Your task to perform on an android device: Open notification settings Image 0: 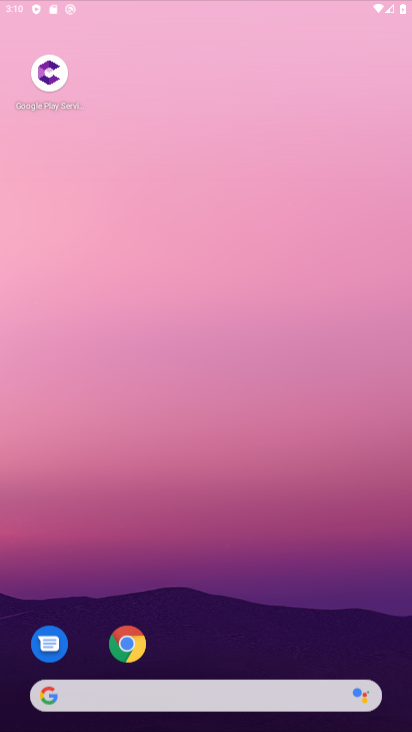
Step 0: click (297, 212)
Your task to perform on an android device: Open notification settings Image 1: 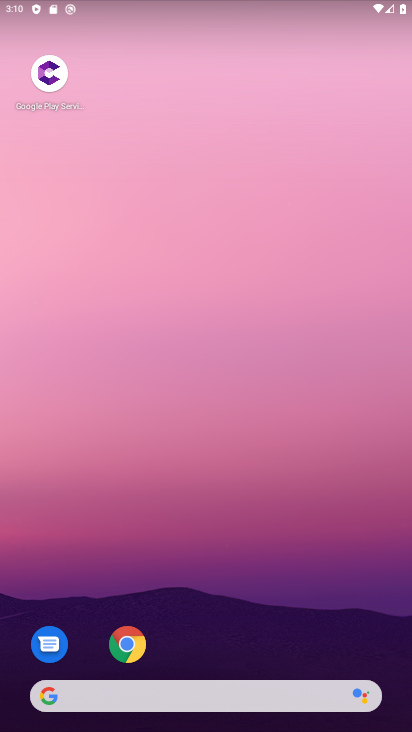
Step 1: press home button
Your task to perform on an android device: Open notification settings Image 2: 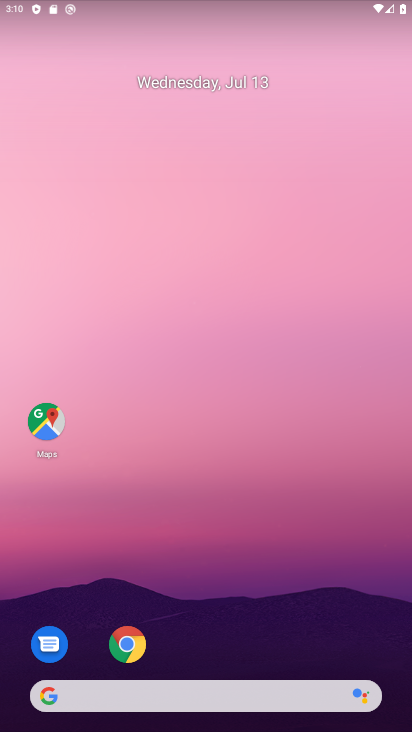
Step 2: drag from (202, 594) to (228, 162)
Your task to perform on an android device: Open notification settings Image 3: 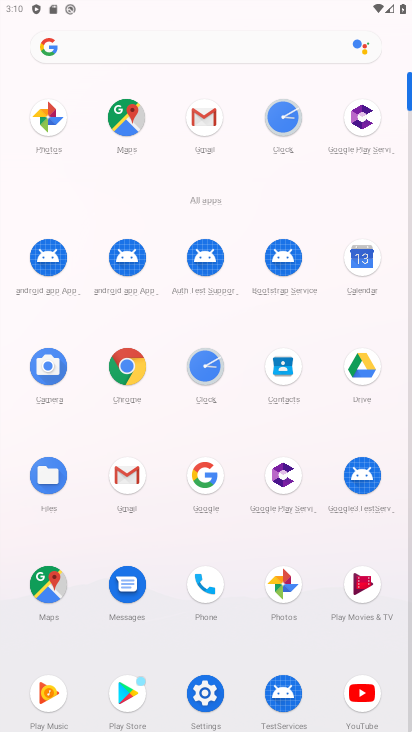
Step 3: click (203, 698)
Your task to perform on an android device: Open notification settings Image 4: 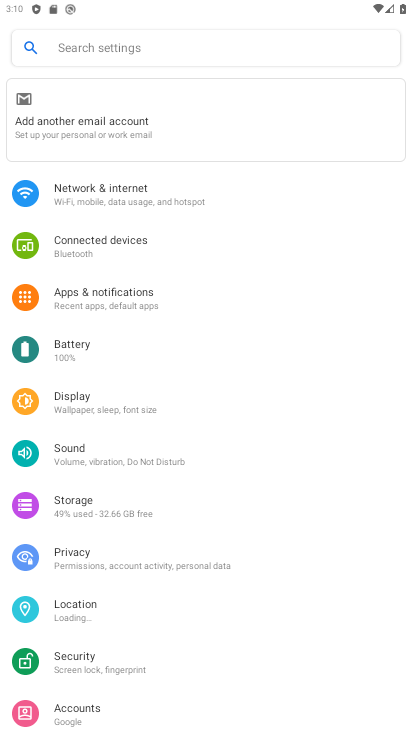
Step 4: click (106, 295)
Your task to perform on an android device: Open notification settings Image 5: 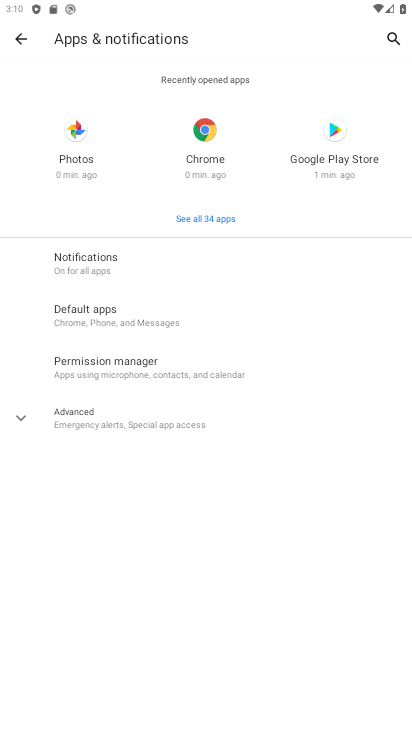
Step 5: click (109, 274)
Your task to perform on an android device: Open notification settings Image 6: 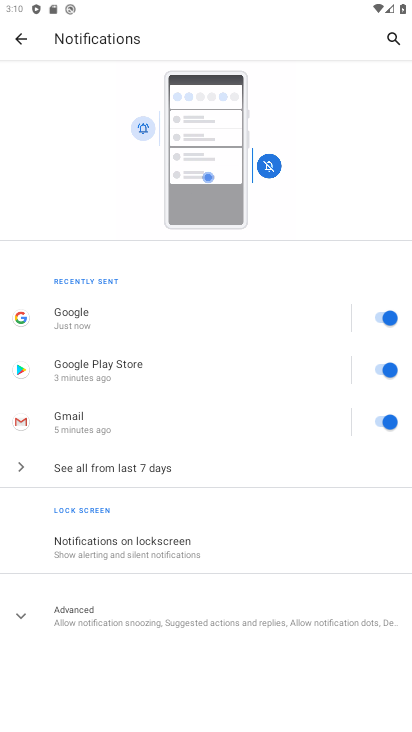
Step 6: drag from (231, 539) to (246, 332)
Your task to perform on an android device: Open notification settings Image 7: 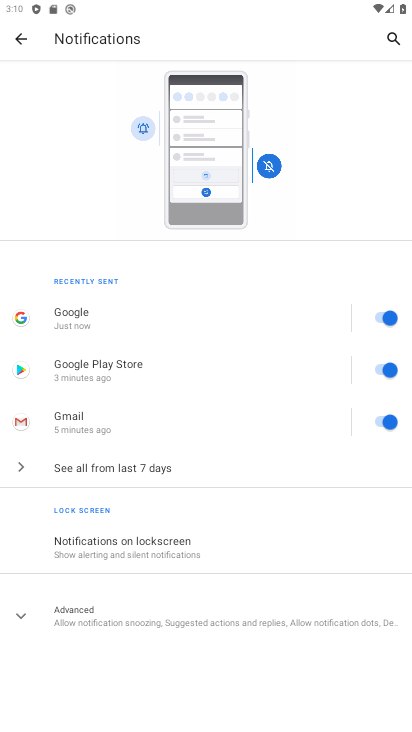
Step 7: click (120, 620)
Your task to perform on an android device: Open notification settings Image 8: 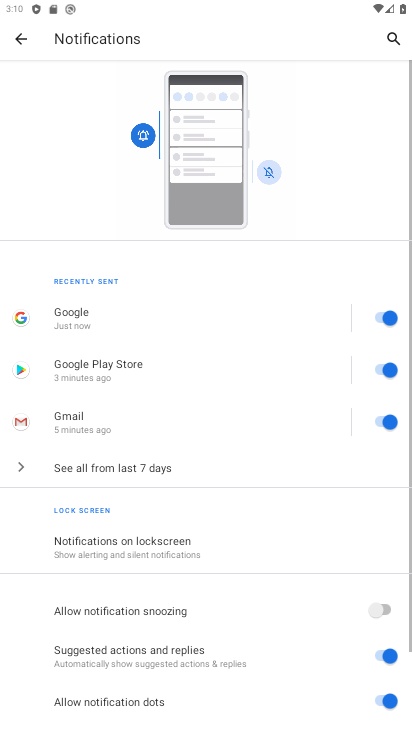
Step 8: task complete